Your task to perform on an android device: Clear the shopping cart on target.com. Add "apple airpods" to the cart on target.com Image 0: 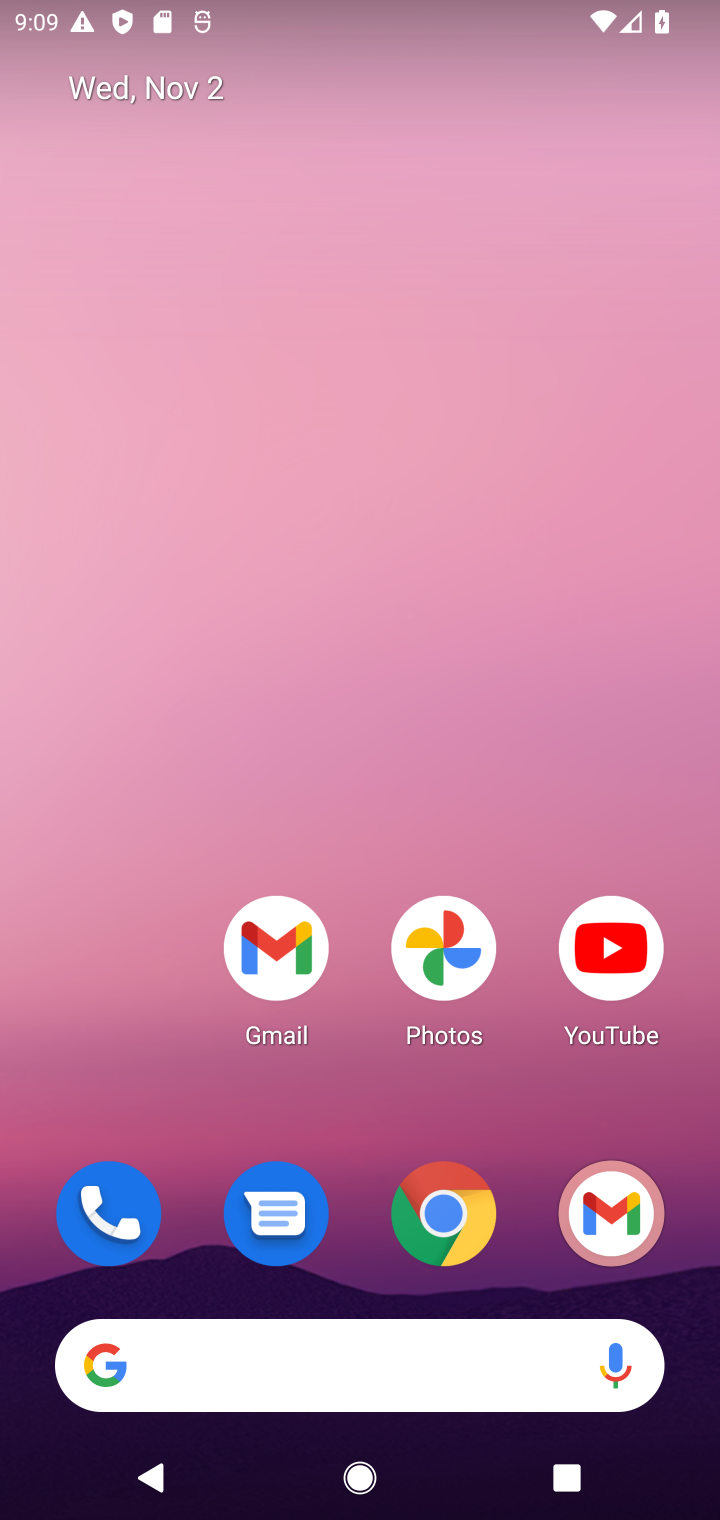
Step 0: click (455, 1239)
Your task to perform on an android device: Clear the shopping cart on target.com. Add "apple airpods" to the cart on target.com Image 1: 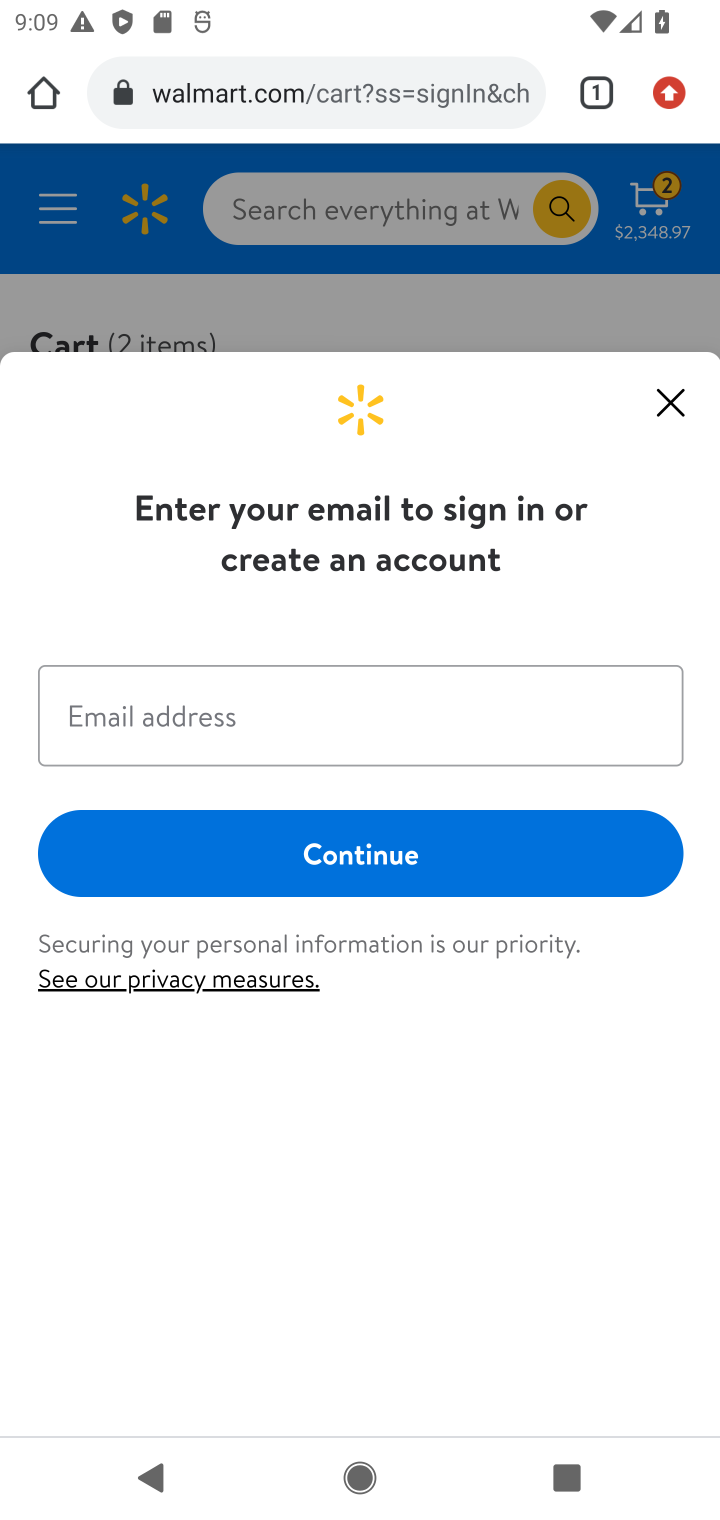
Step 1: click (320, 112)
Your task to perform on an android device: Clear the shopping cart on target.com. Add "apple airpods" to the cart on target.com Image 2: 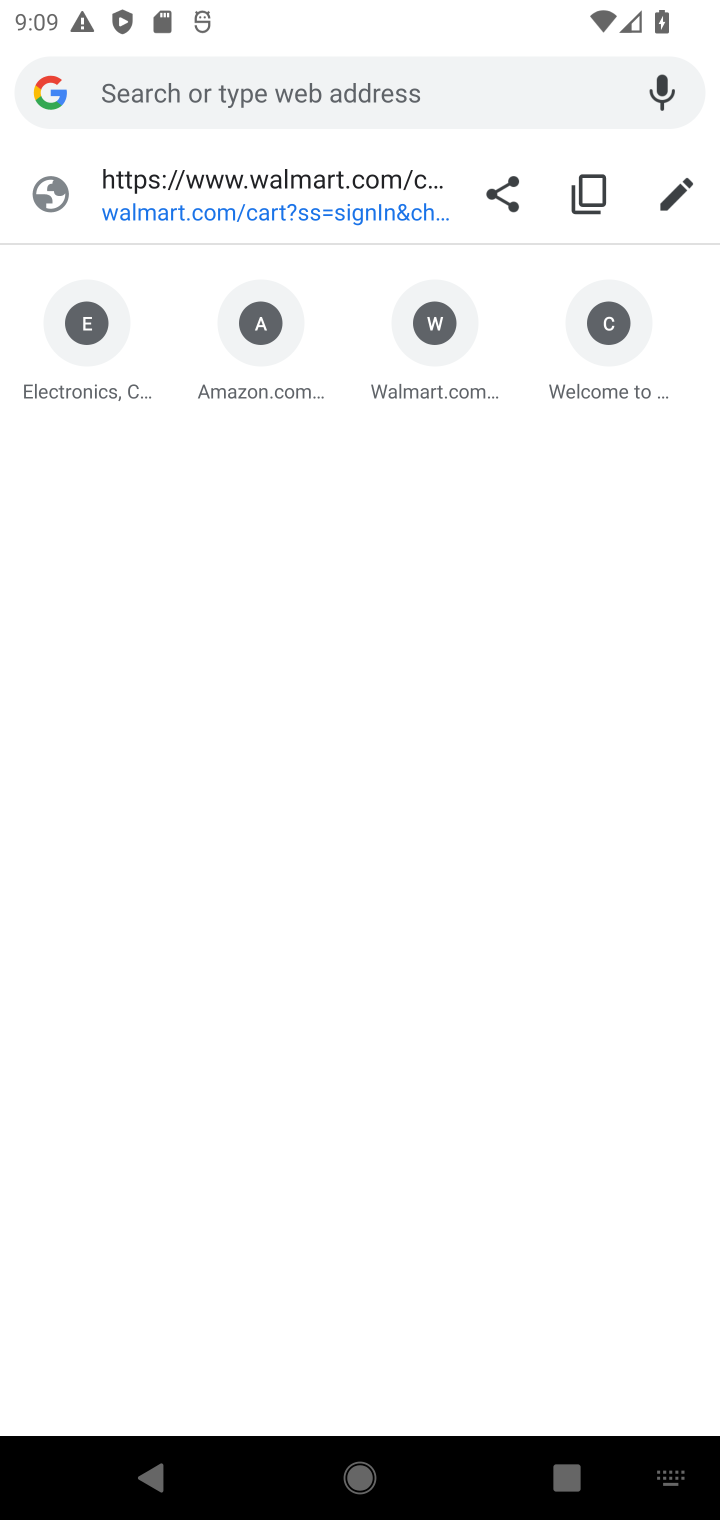
Step 2: type "target.com"
Your task to perform on an android device: Clear the shopping cart on target.com. Add "apple airpods" to the cart on target.com Image 3: 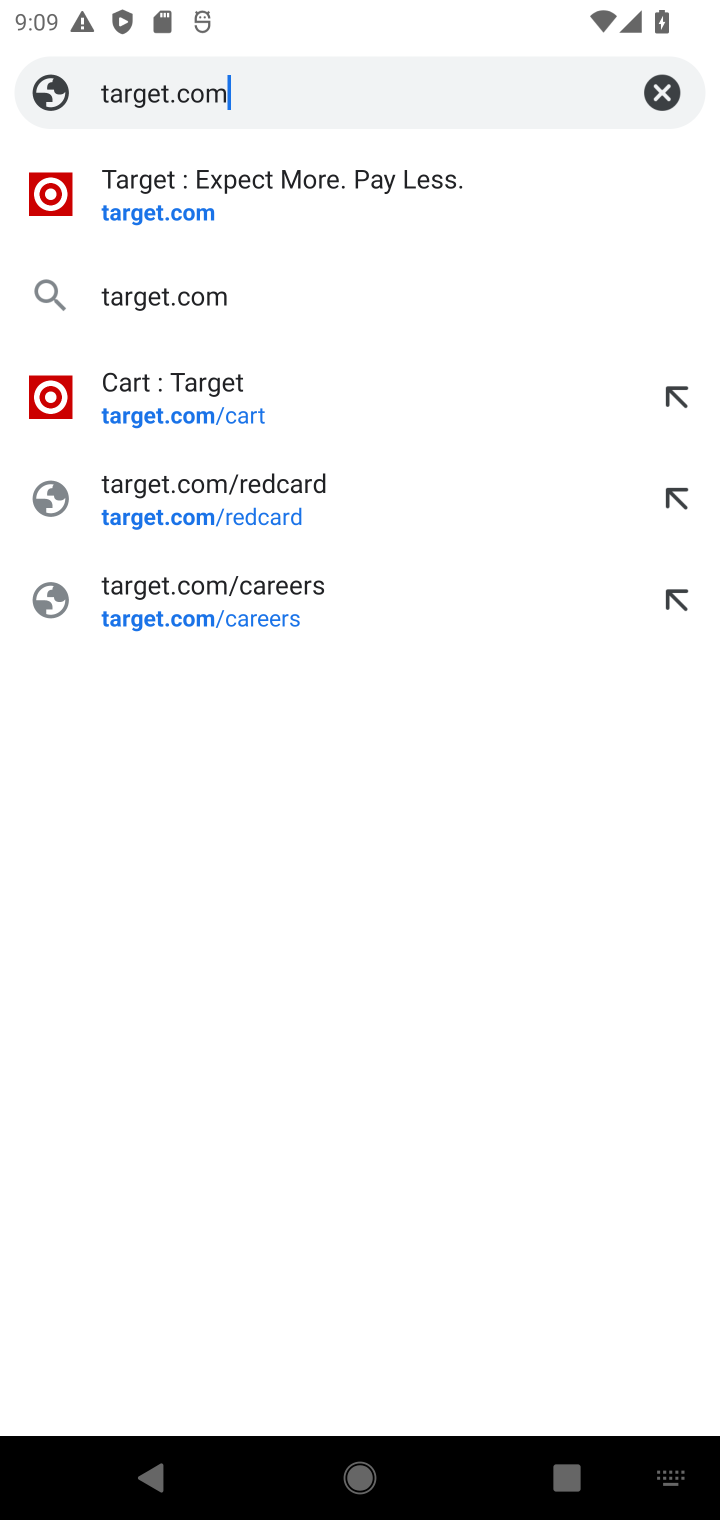
Step 3: click (160, 203)
Your task to perform on an android device: Clear the shopping cart on target.com. Add "apple airpods" to the cart on target.com Image 4: 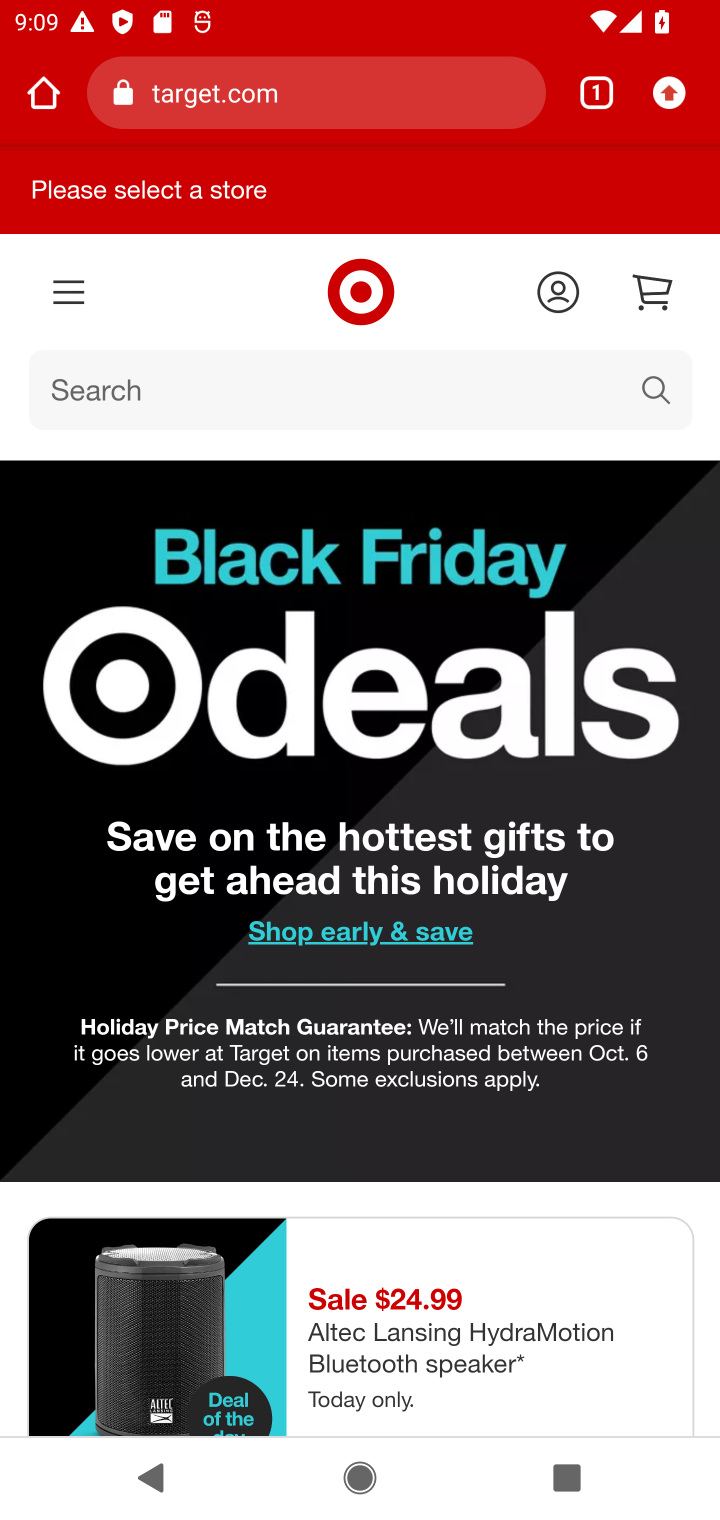
Step 4: click (672, 294)
Your task to perform on an android device: Clear the shopping cart on target.com. Add "apple airpods" to the cart on target.com Image 5: 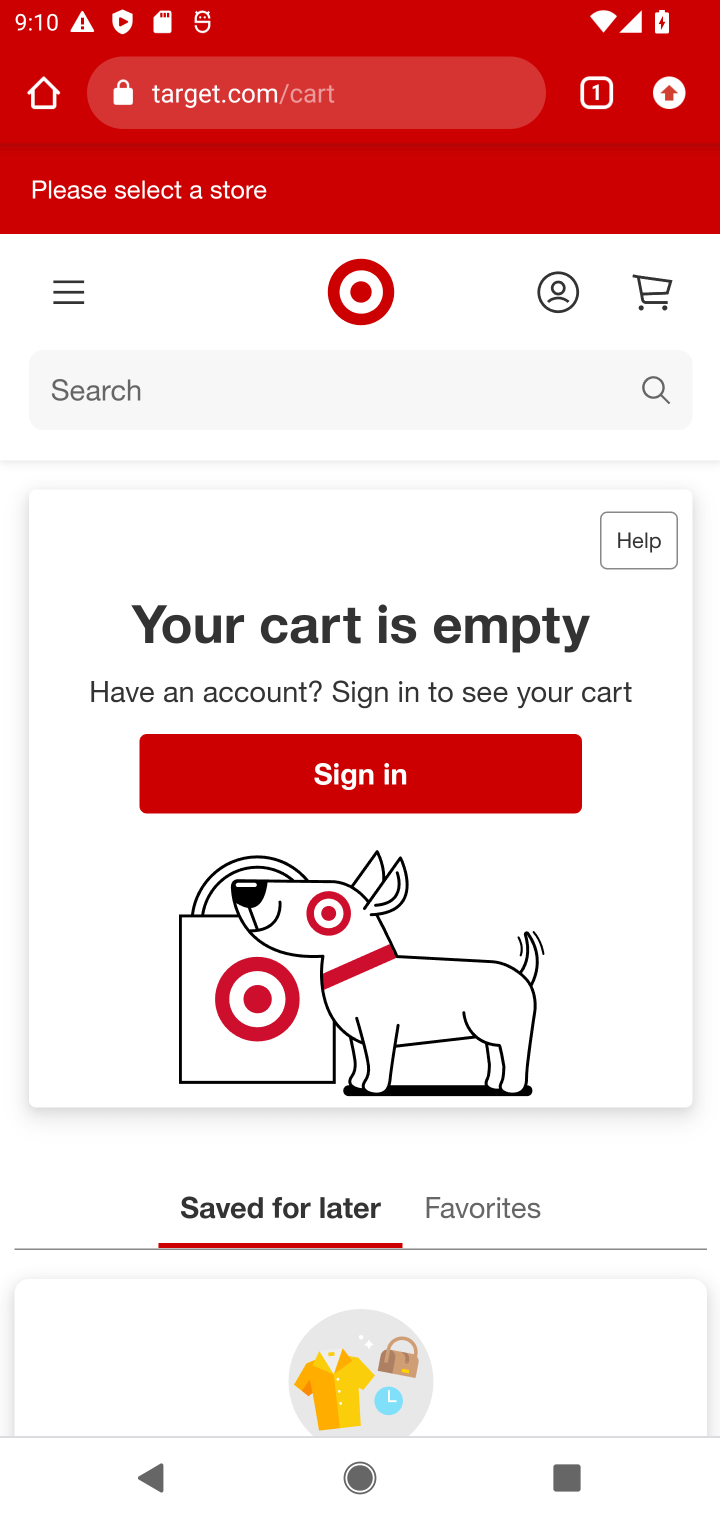
Step 5: click (259, 400)
Your task to perform on an android device: Clear the shopping cart on target.com. Add "apple airpods" to the cart on target.com Image 6: 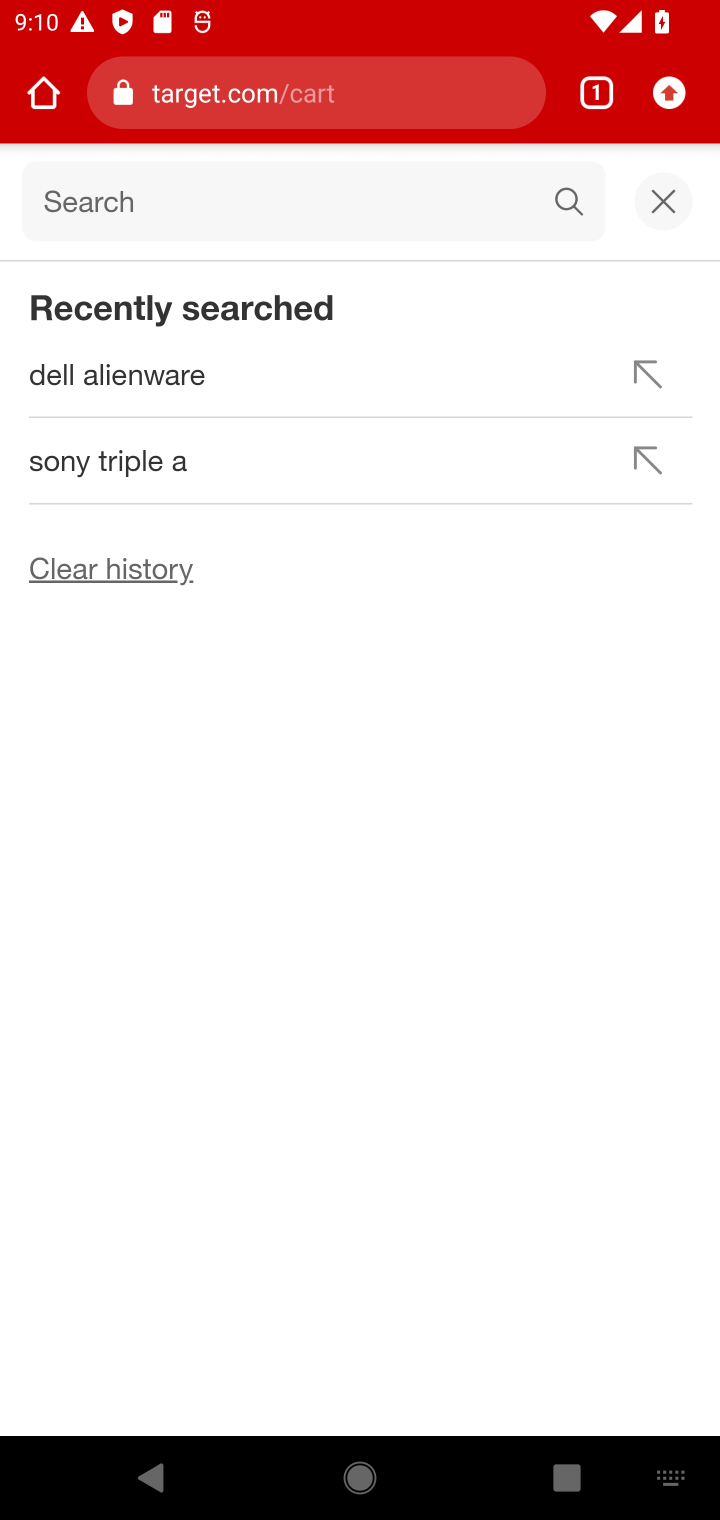
Step 6: type "apple airpods"
Your task to perform on an android device: Clear the shopping cart on target.com. Add "apple airpods" to the cart on target.com Image 7: 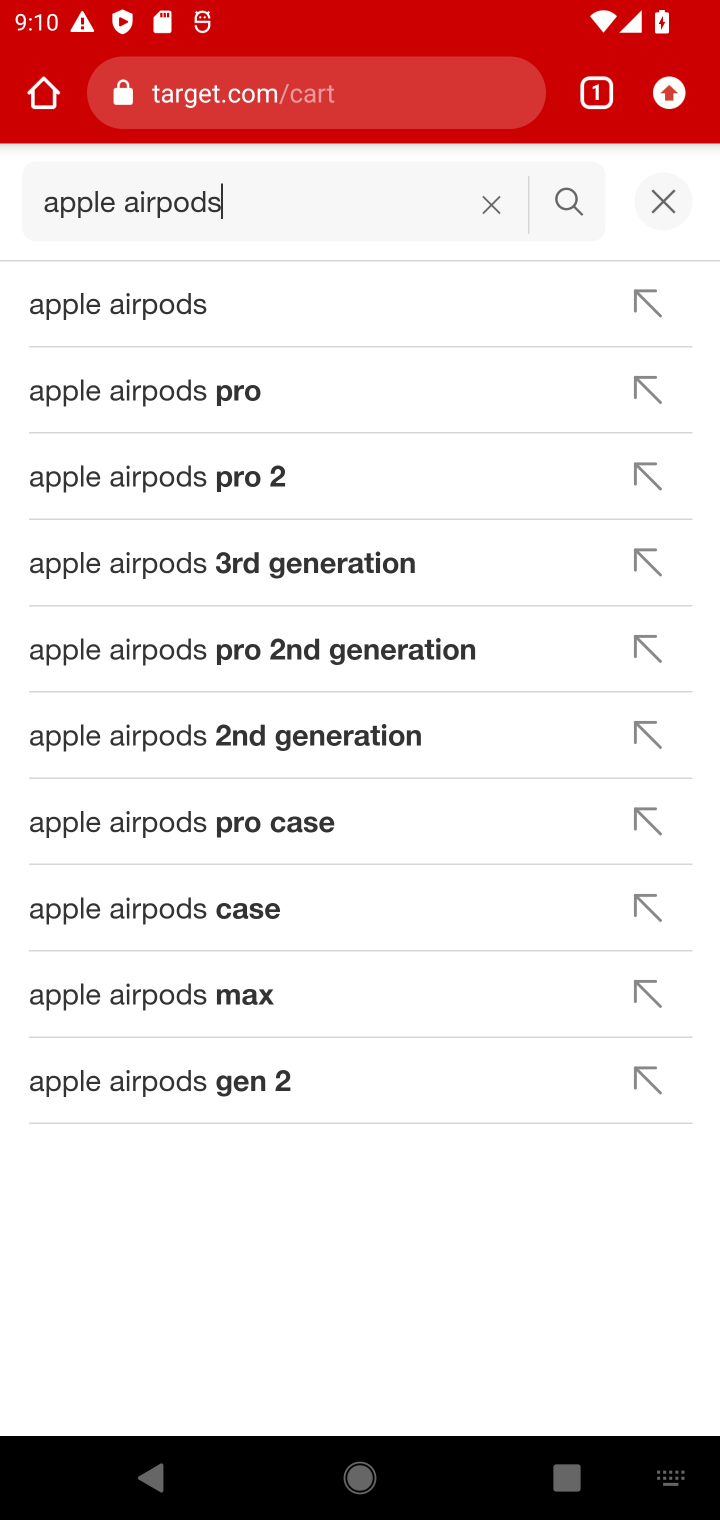
Step 7: click (115, 312)
Your task to perform on an android device: Clear the shopping cart on target.com. Add "apple airpods" to the cart on target.com Image 8: 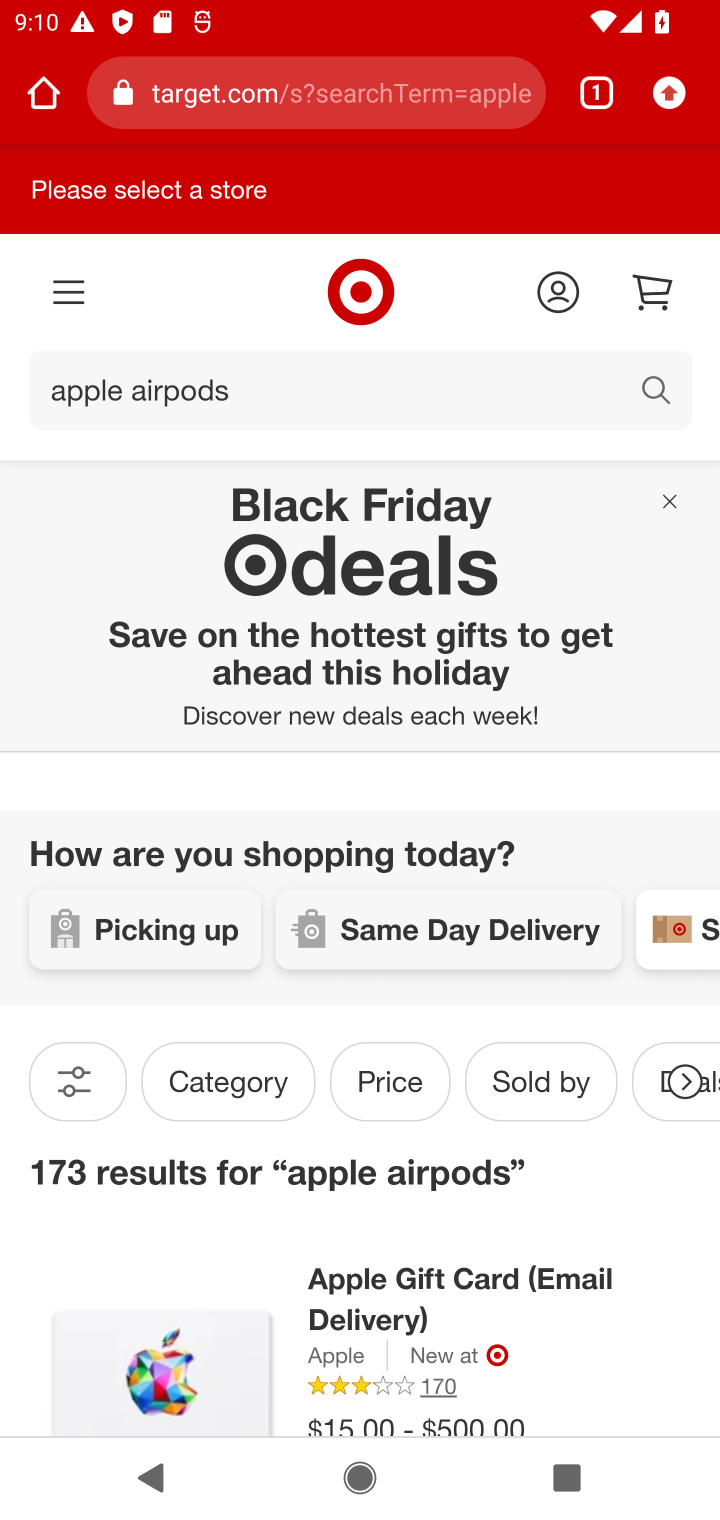
Step 8: drag from (339, 973) to (378, 710)
Your task to perform on an android device: Clear the shopping cart on target.com. Add "apple airpods" to the cart on target.com Image 9: 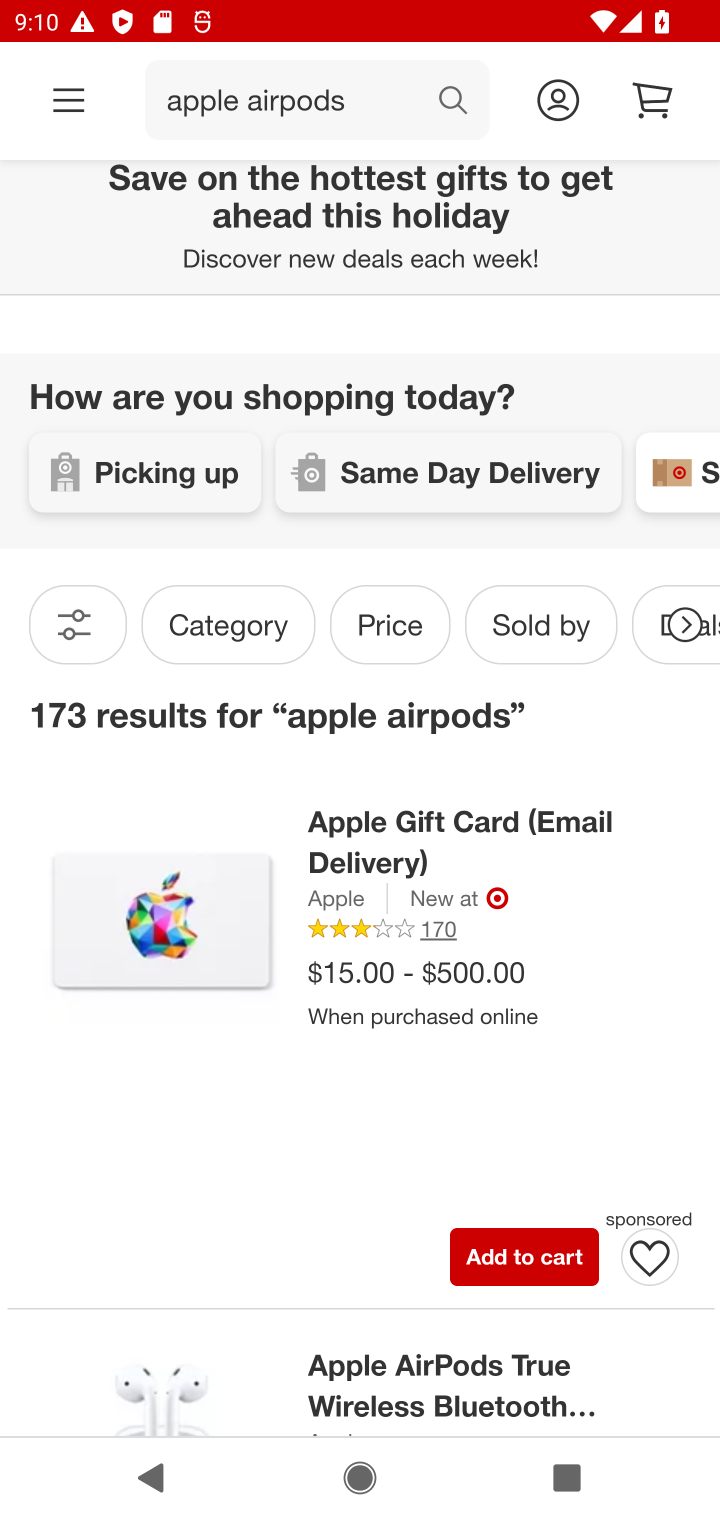
Step 9: click (456, 294)
Your task to perform on an android device: Clear the shopping cart on target.com. Add "apple airpods" to the cart on target.com Image 10: 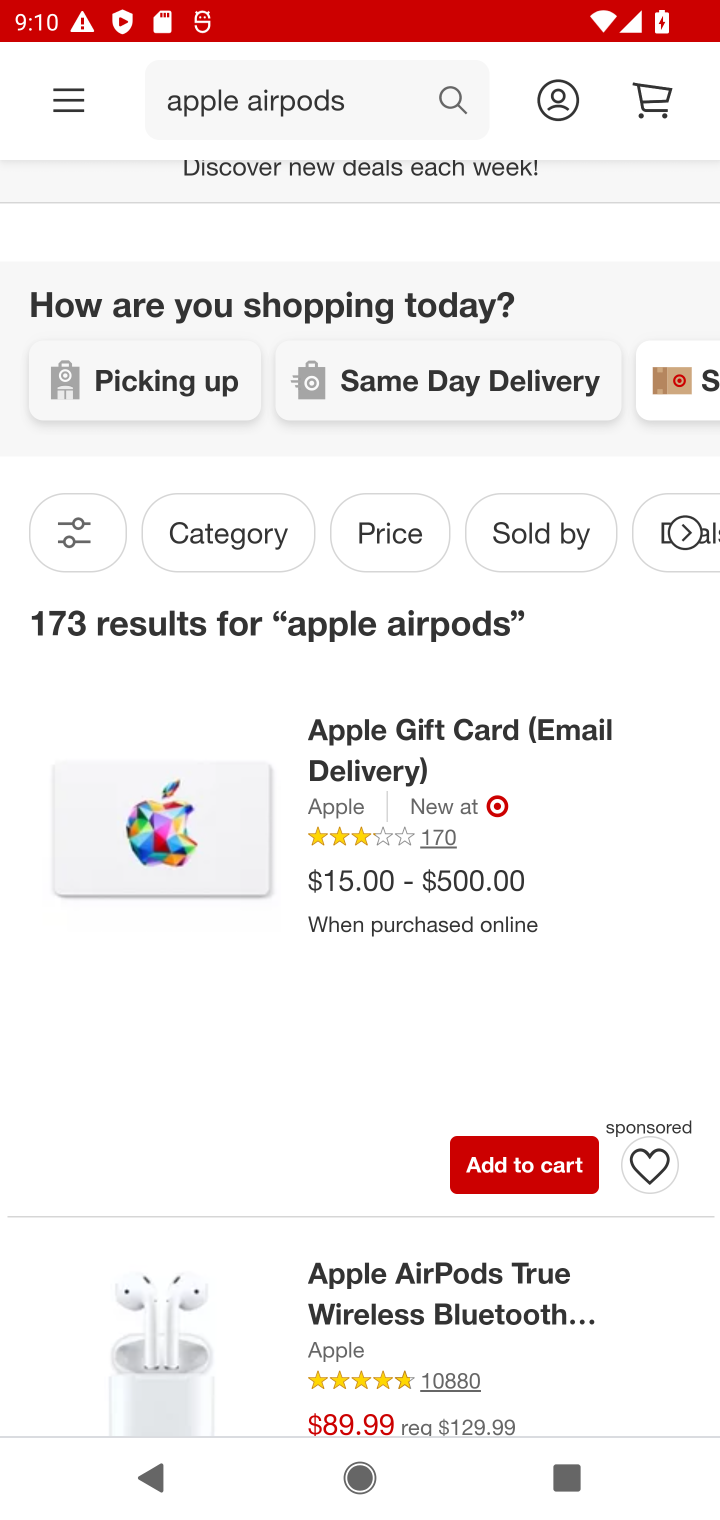
Step 10: click (407, 1368)
Your task to perform on an android device: Clear the shopping cart on target.com. Add "apple airpods" to the cart on target.com Image 11: 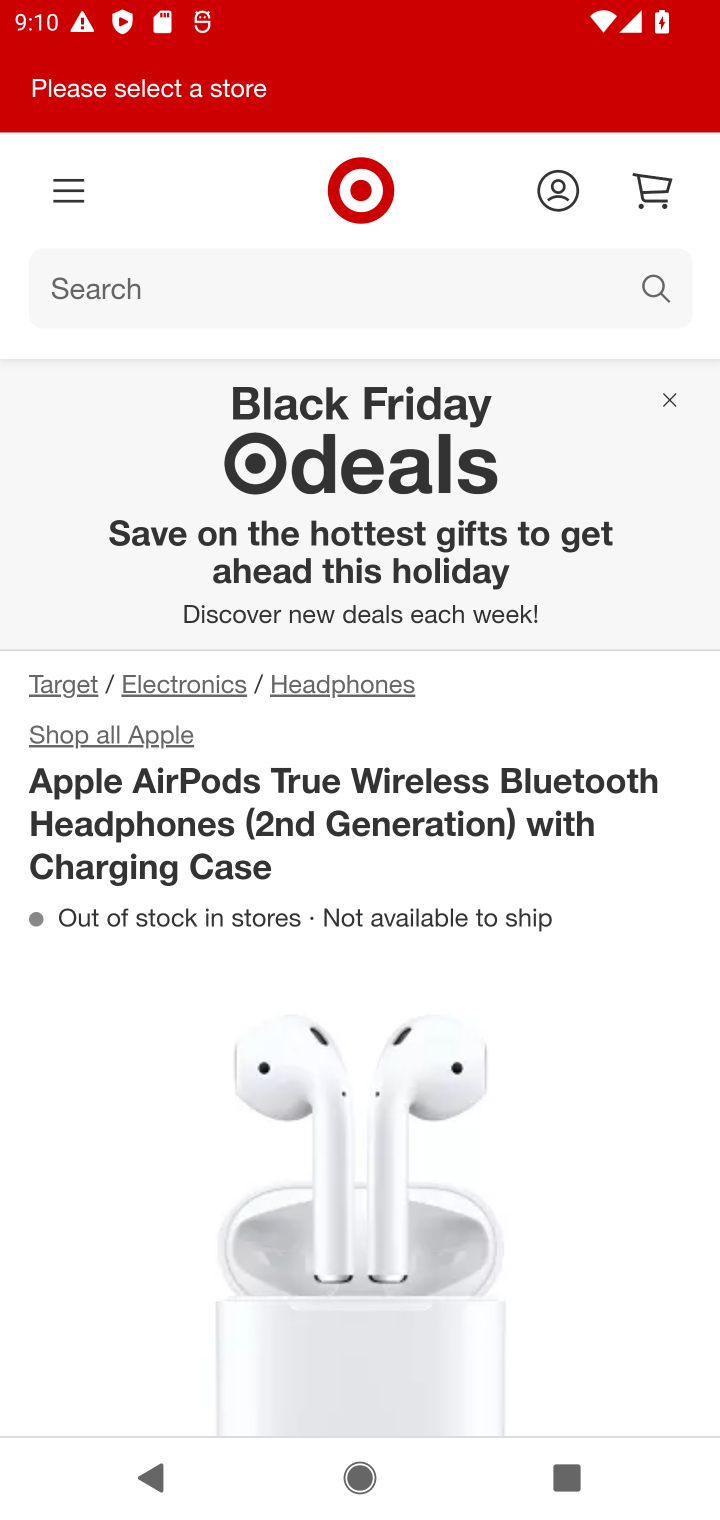
Step 11: drag from (358, 1159) to (399, 495)
Your task to perform on an android device: Clear the shopping cart on target.com. Add "apple airpods" to the cart on target.com Image 12: 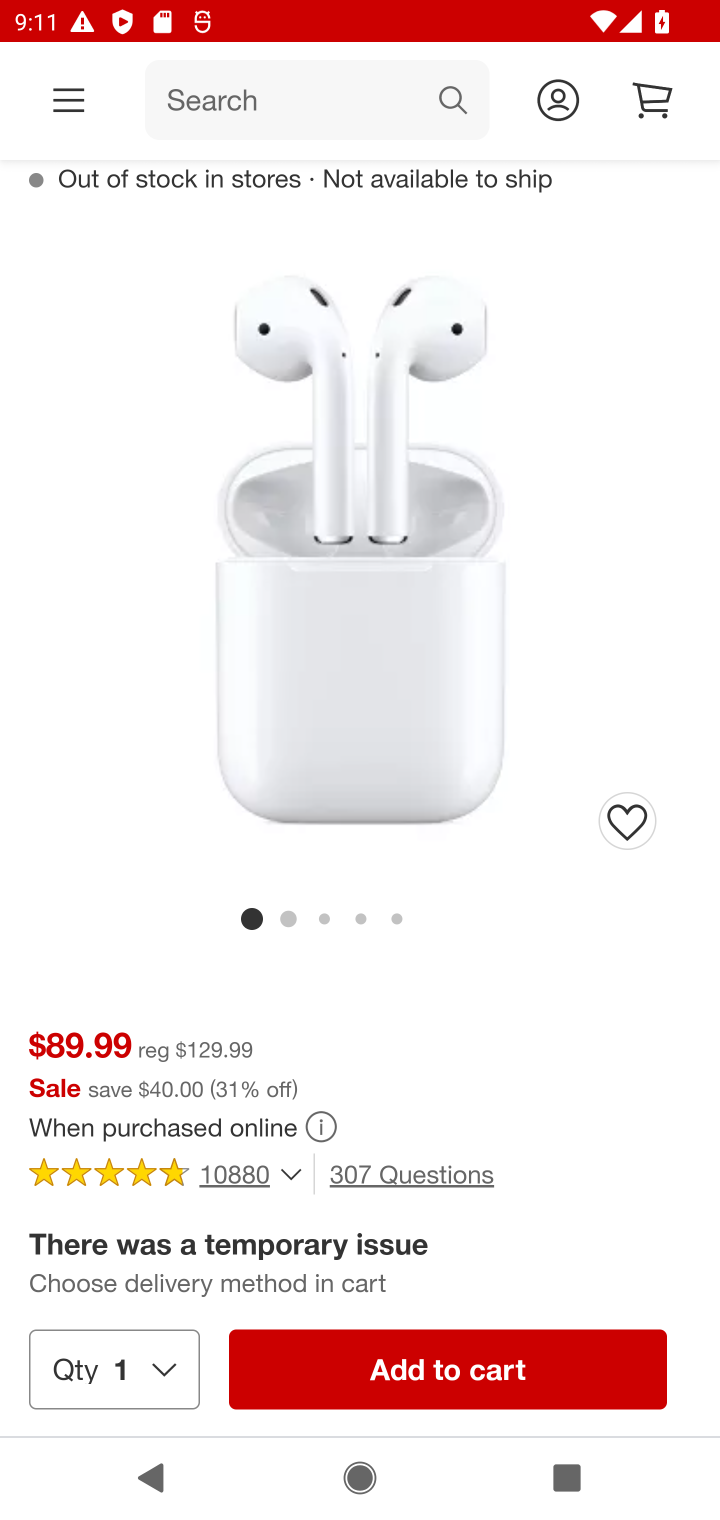
Step 12: drag from (351, 1089) to (386, 650)
Your task to perform on an android device: Clear the shopping cart on target.com. Add "apple airpods" to the cart on target.com Image 13: 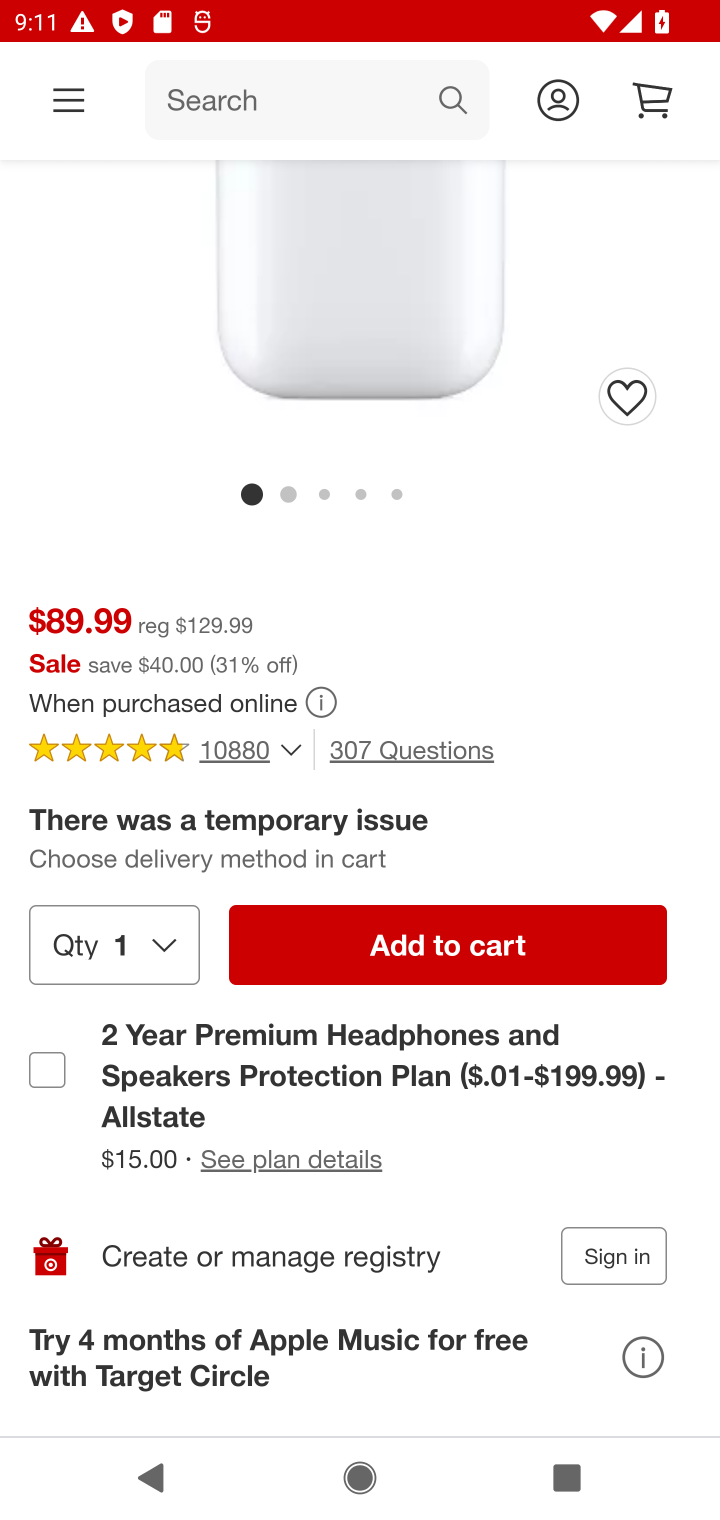
Step 13: click (439, 946)
Your task to perform on an android device: Clear the shopping cart on target.com. Add "apple airpods" to the cart on target.com Image 14: 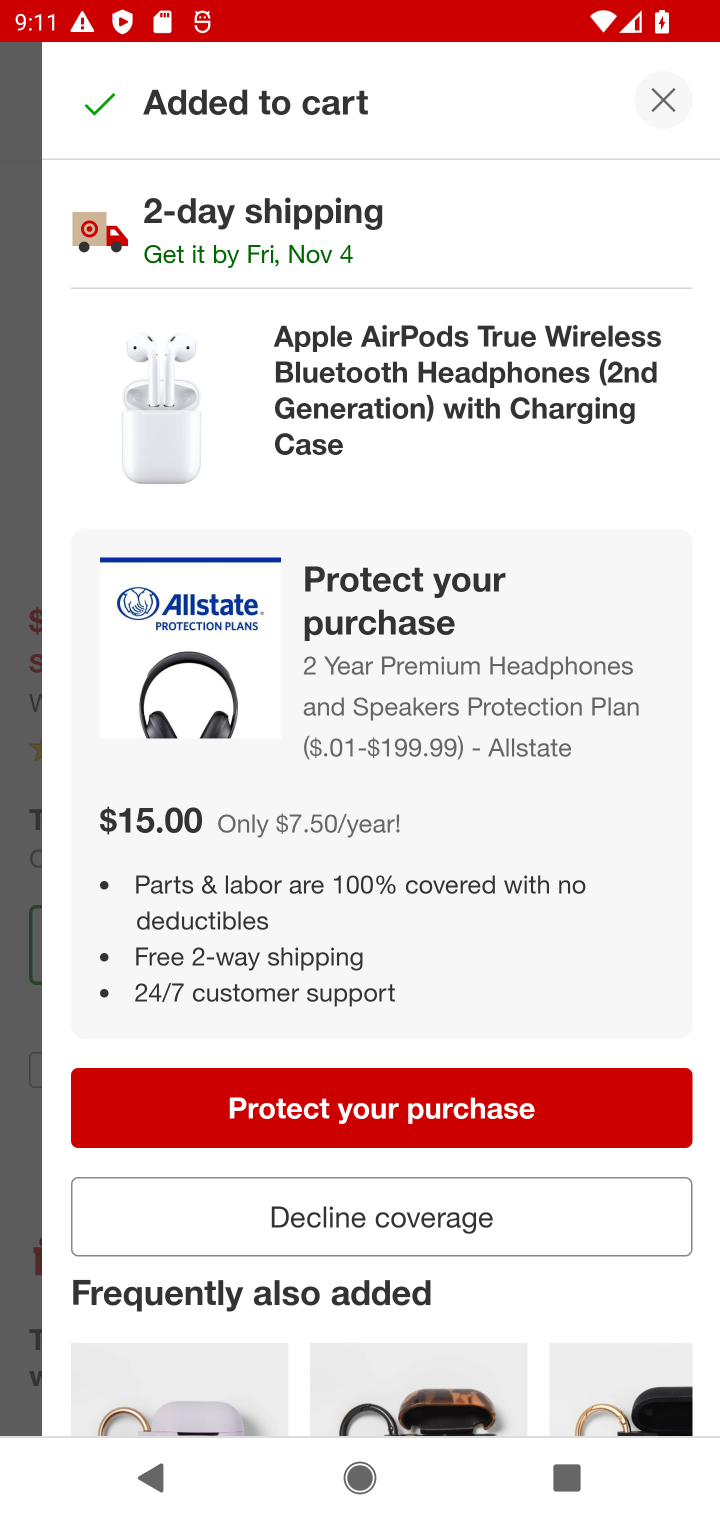
Step 14: click (662, 112)
Your task to perform on an android device: Clear the shopping cart on target.com. Add "apple airpods" to the cart on target.com Image 15: 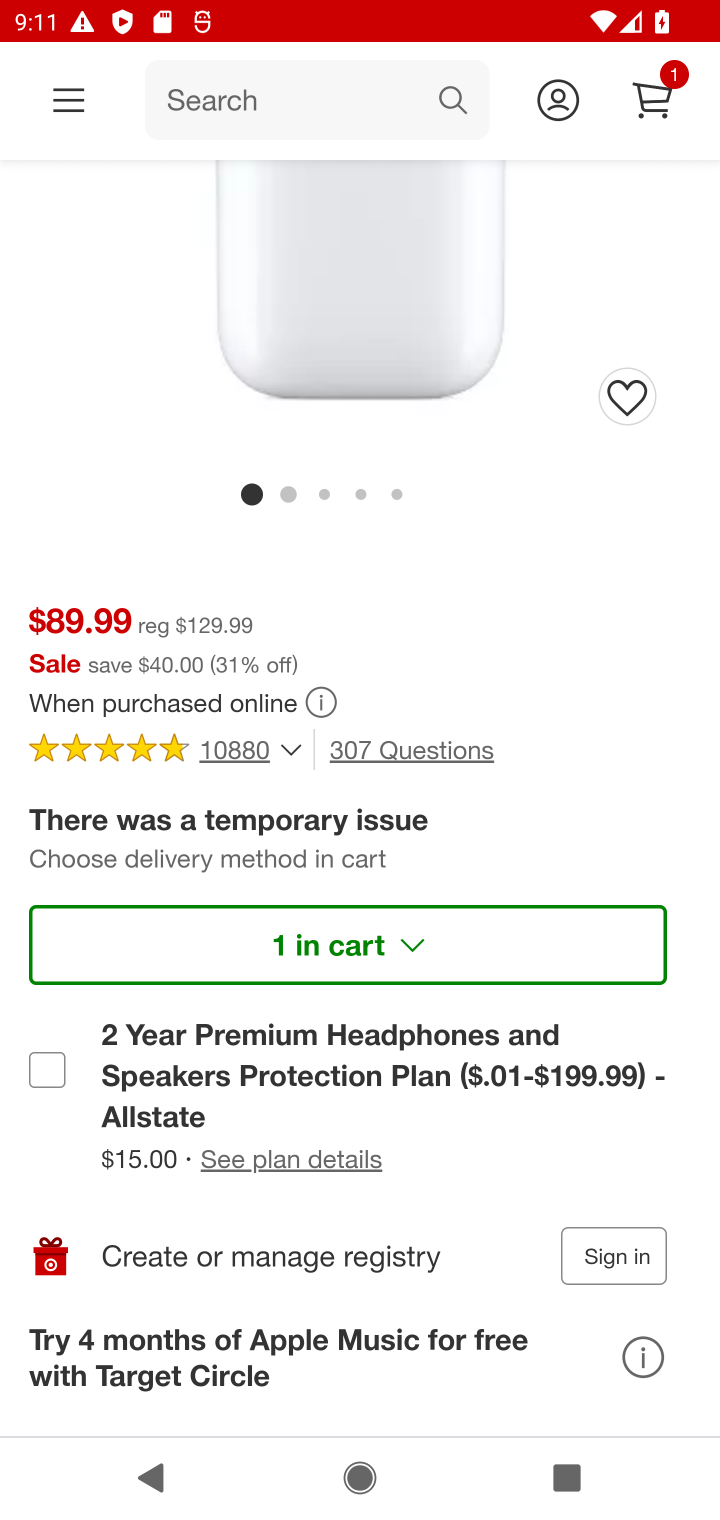
Step 15: task complete